Your task to perform on an android device: Open the phone app and click the voicemail tab. Image 0: 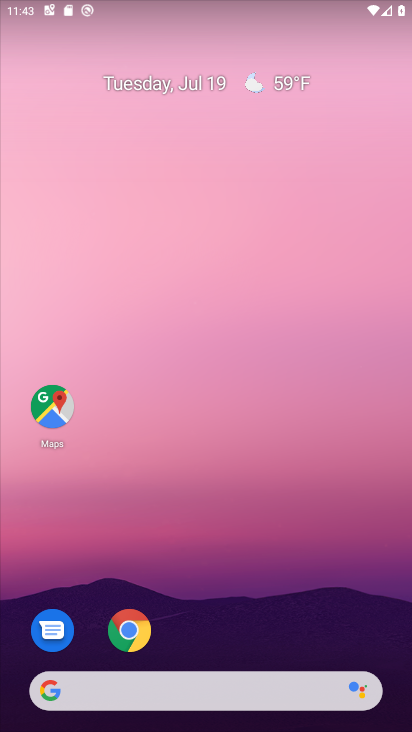
Step 0: drag from (322, 635) to (280, 181)
Your task to perform on an android device: Open the phone app and click the voicemail tab. Image 1: 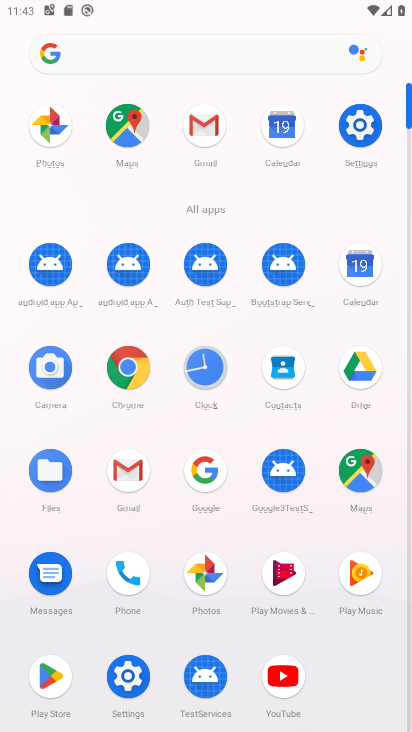
Step 1: click (124, 573)
Your task to perform on an android device: Open the phone app and click the voicemail tab. Image 2: 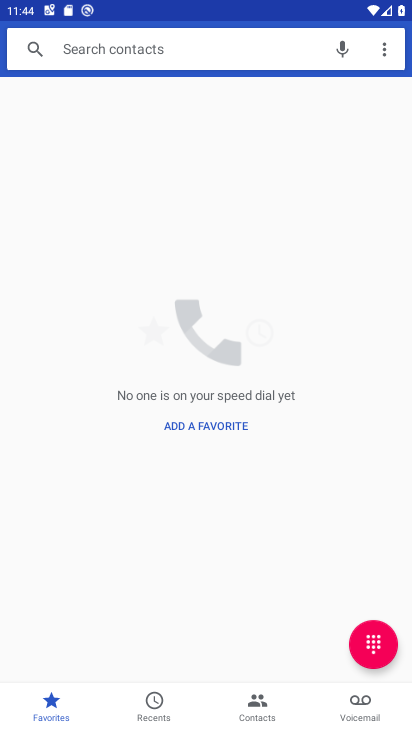
Step 2: click (357, 700)
Your task to perform on an android device: Open the phone app and click the voicemail tab. Image 3: 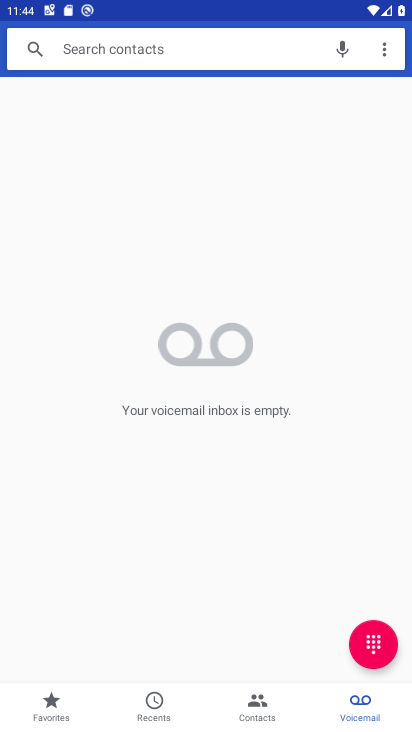
Step 3: task complete